Your task to perform on an android device: change the clock style Image 0: 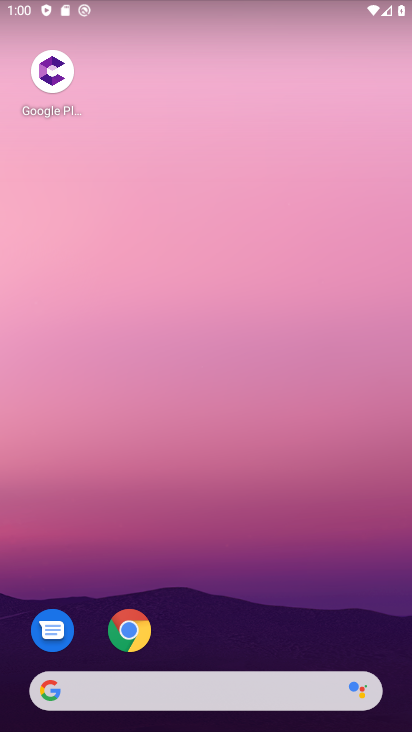
Step 0: drag from (241, 706) to (216, 389)
Your task to perform on an android device: change the clock style Image 1: 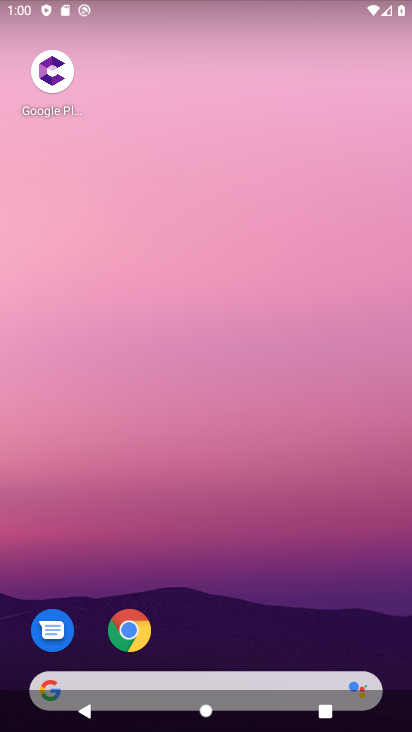
Step 1: drag from (265, 678) to (240, 37)
Your task to perform on an android device: change the clock style Image 2: 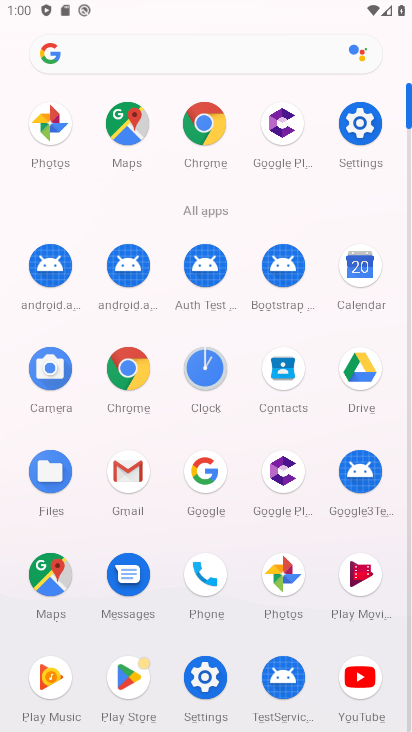
Step 2: click (205, 378)
Your task to perform on an android device: change the clock style Image 3: 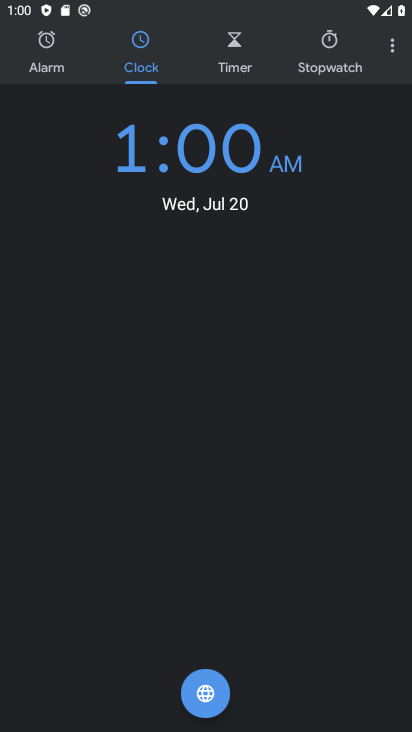
Step 3: click (398, 43)
Your task to perform on an android device: change the clock style Image 4: 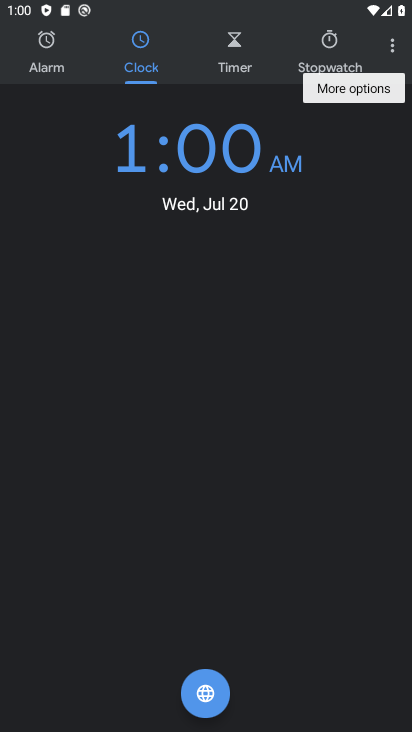
Step 4: click (296, 195)
Your task to perform on an android device: change the clock style Image 5: 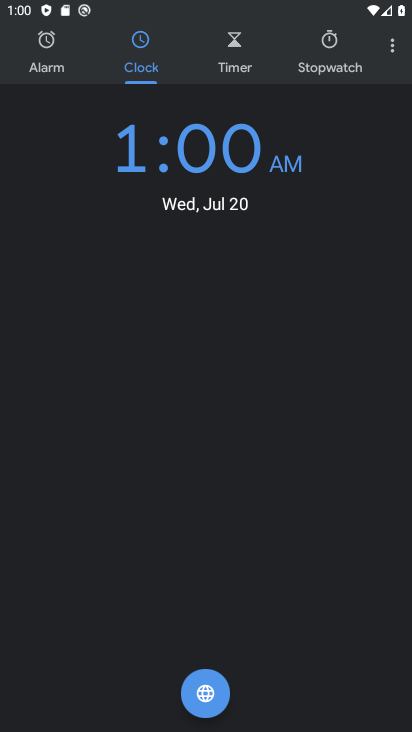
Step 5: click (395, 49)
Your task to perform on an android device: change the clock style Image 6: 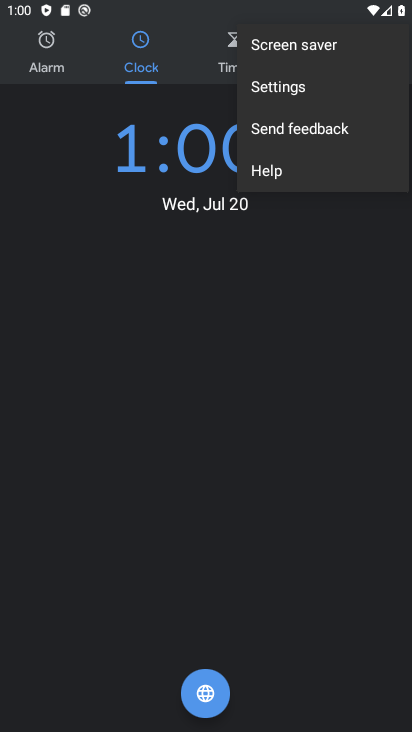
Step 6: click (280, 94)
Your task to perform on an android device: change the clock style Image 7: 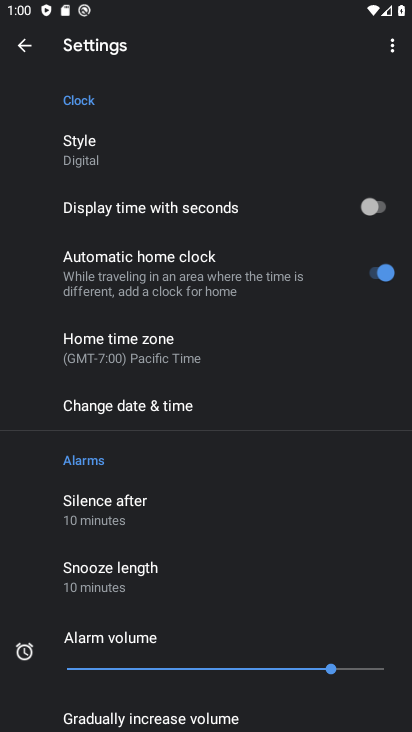
Step 7: click (148, 157)
Your task to perform on an android device: change the clock style Image 8: 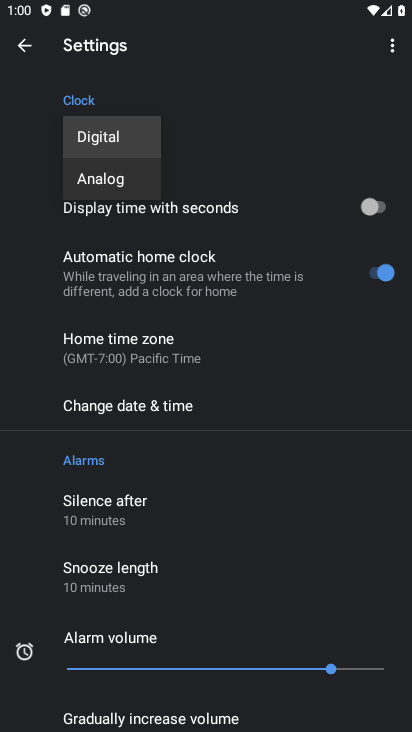
Step 8: click (87, 167)
Your task to perform on an android device: change the clock style Image 9: 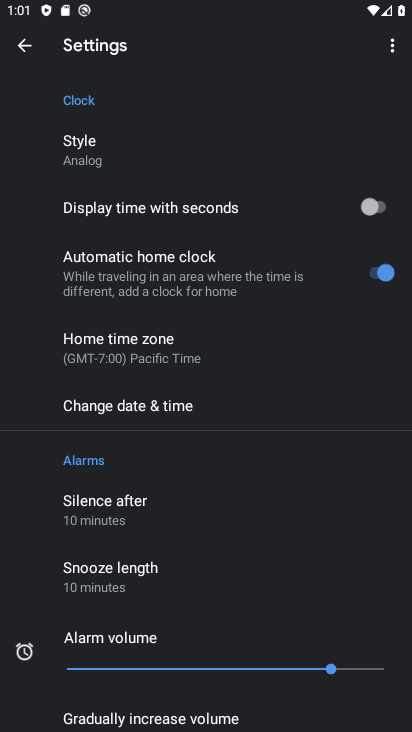
Step 9: task complete